Your task to perform on an android device: install app "Contacts" Image 0: 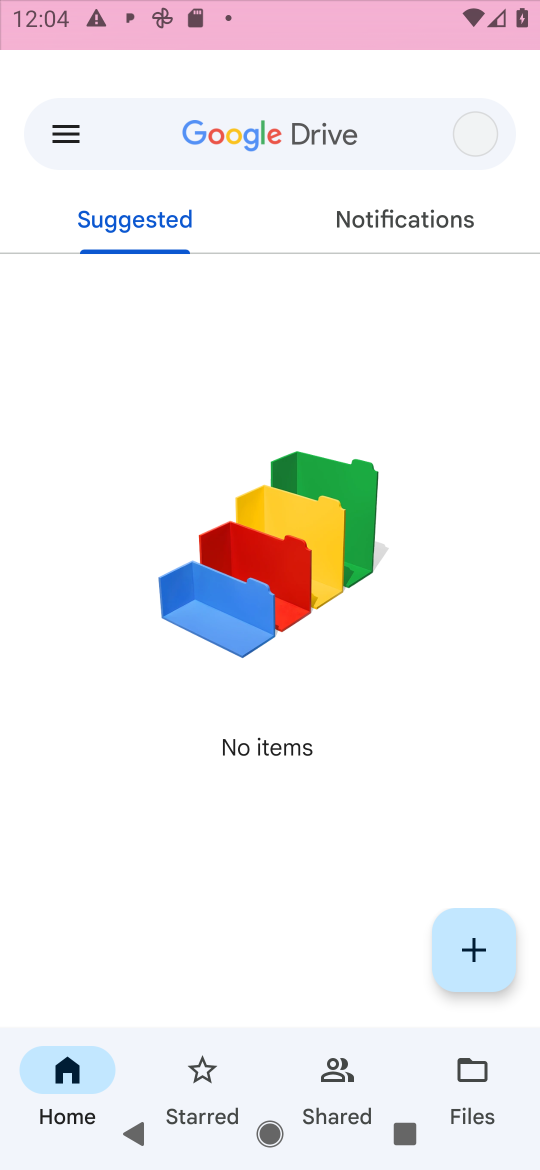
Step 0: press home button
Your task to perform on an android device: install app "Contacts" Image 1: 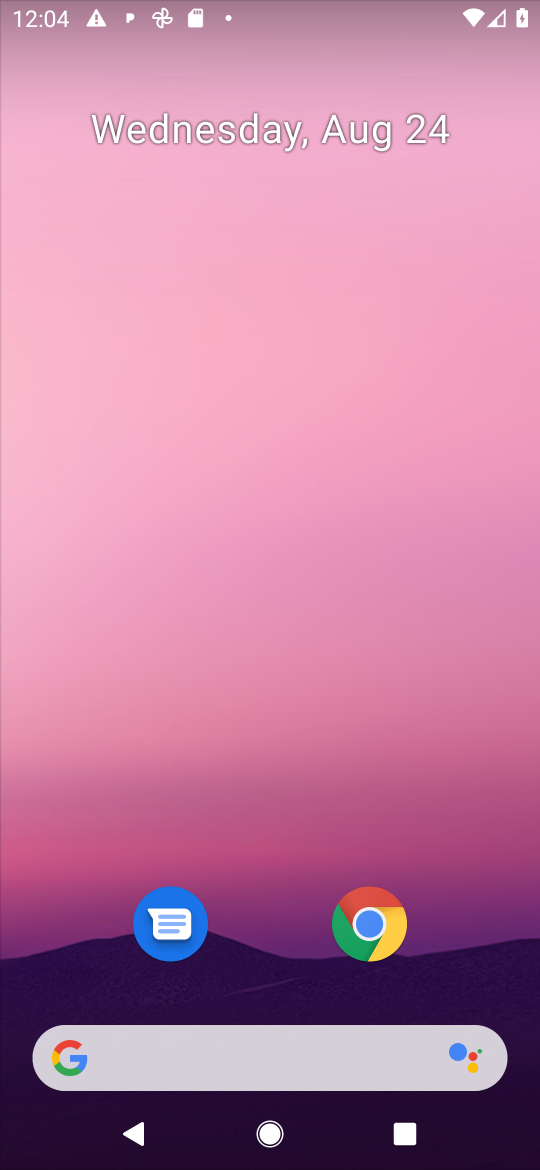
Step 1: drag from (474, 902) to (506, 166)
Your task to perform on an android device: install app "Contacts" Image 2: 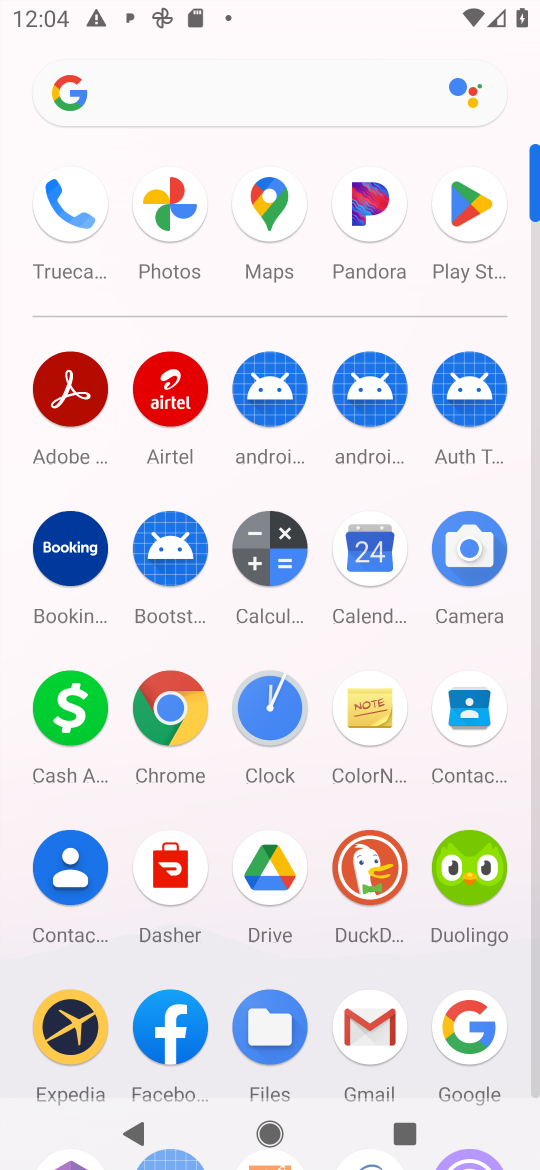
Step 2: click (459, 207)
Your task to perform on an android device: install app "Contacts" Image 3: 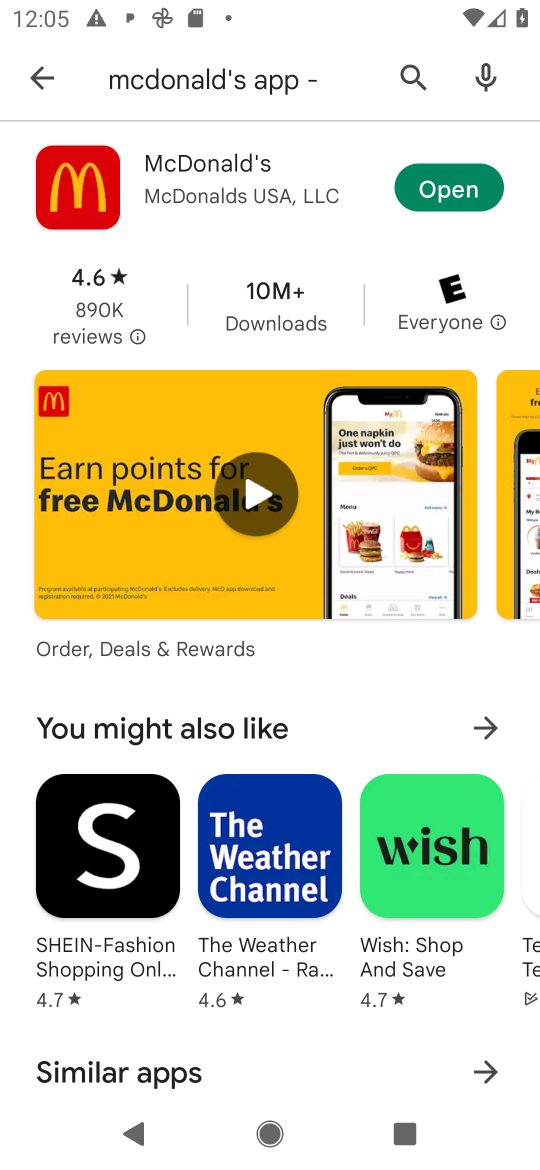
Step 3: press back button
Your task to perform on an android device: install app "Contacts" Image 4: 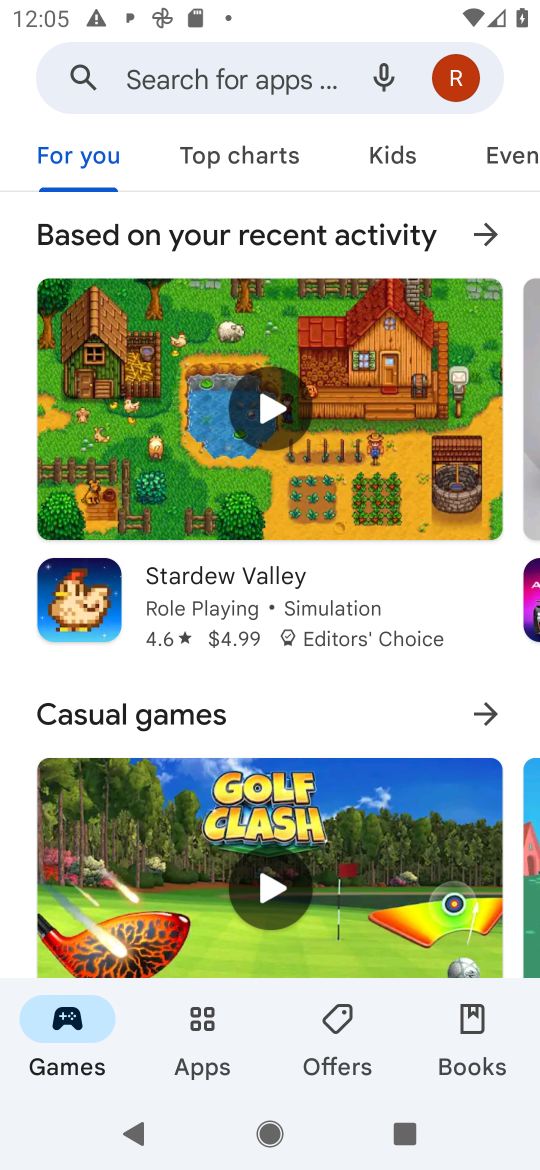
Step 4: click (259, 77)
Your task to perform on an android device: install app "Contacts" Image 5: 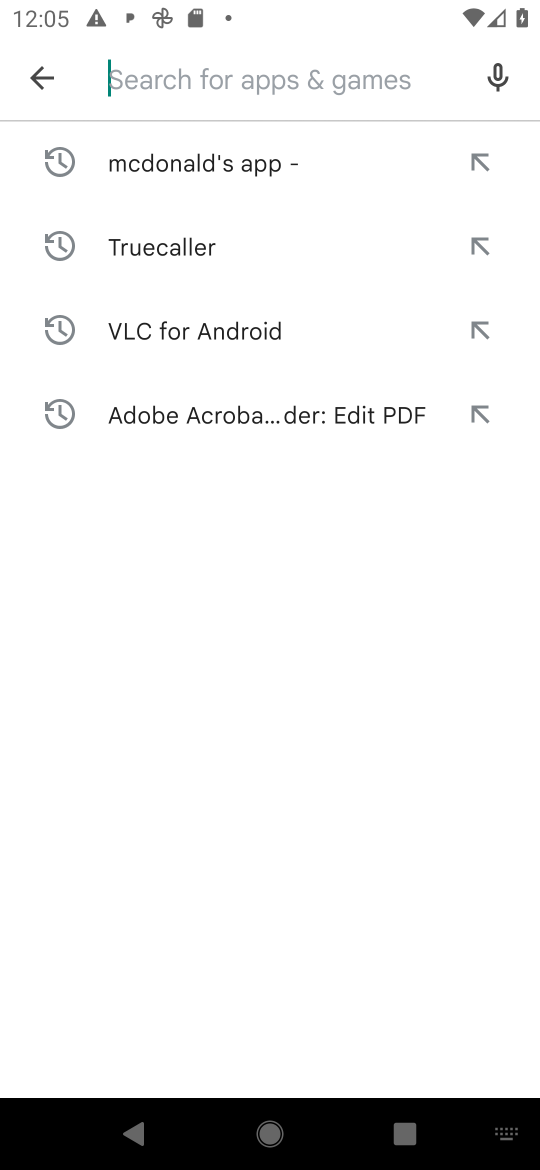
Step 5: type "Contacts"
Your task to perform on an android device: install app "Contacts" Image 6: 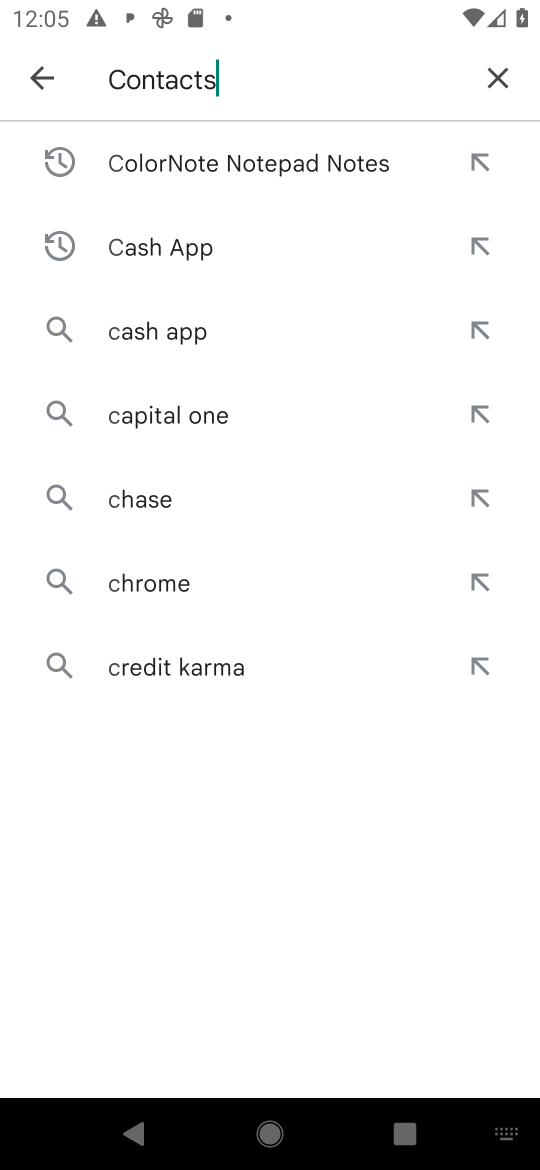
Step 6: press enter
Your task to perform on an android device: install app "Contacts" Image 7: 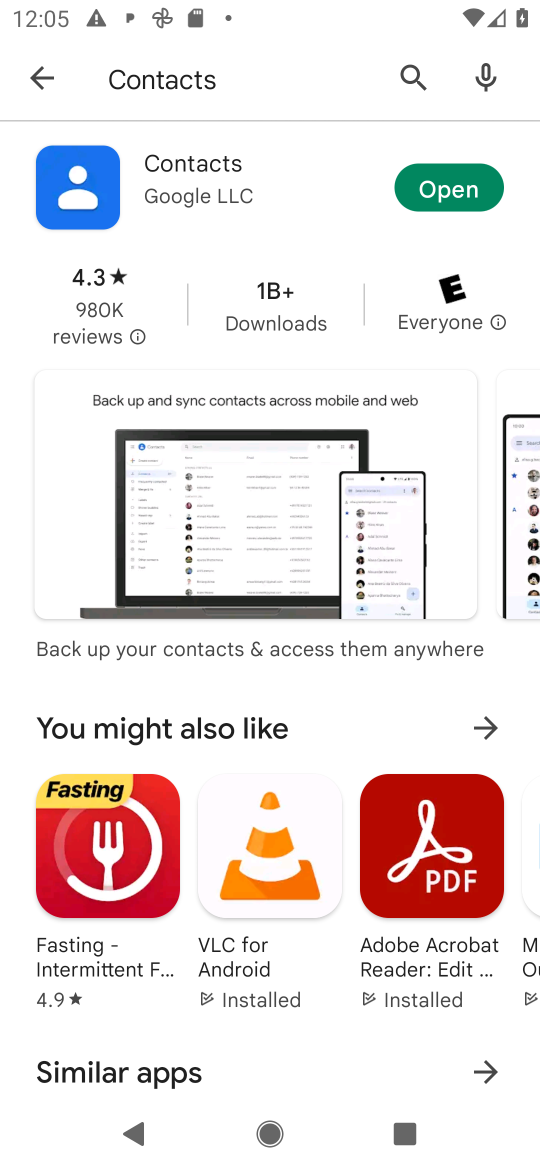
Step 7: task complete